Your task to perform on an android device: toggle improve location accuracy Image 0: 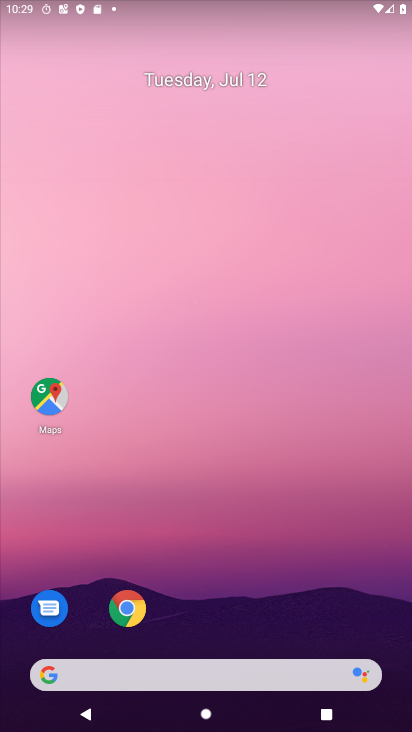
Step 0: drag from (243, 621) to (301, 56)
Your task to perform on an android device: toggle improve location accuracy Image 1: 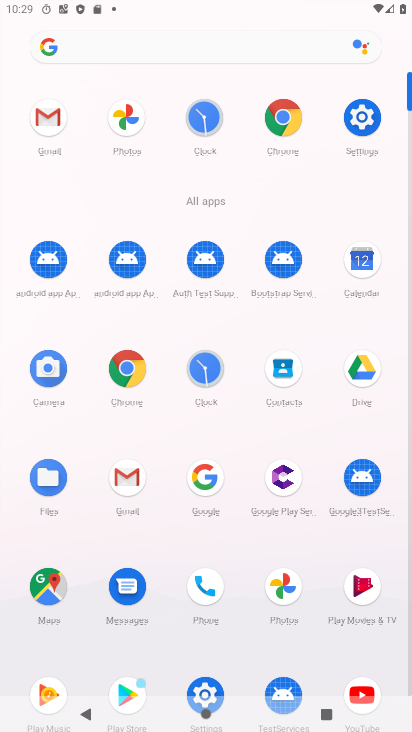
Step 1: click (362, 111)
Your task to perform on an android device: toggle improve location accuracy Image 2: 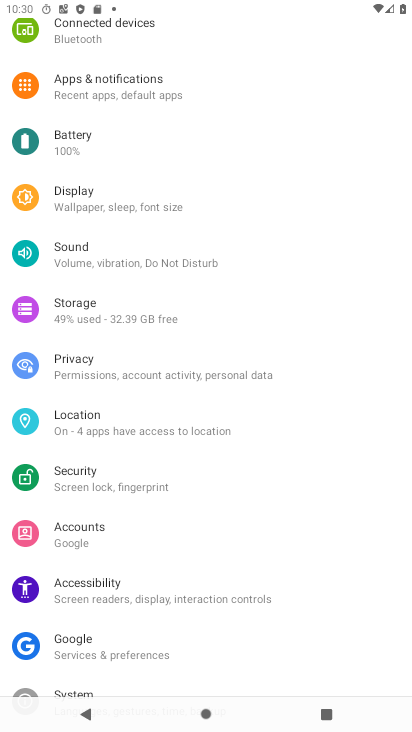
Step 2: click (91, 410)
Your task to perform on an android device: toggle improve location accuracy Image 3: 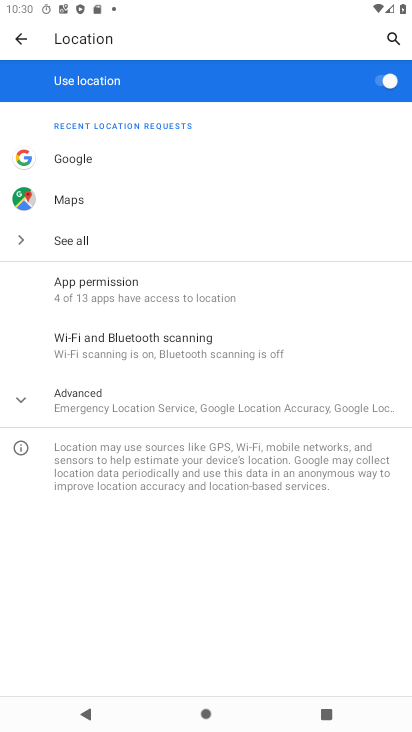
Step 3: click (127, 393)
Your task to perform on an android device: toggle improve location accuracy Image 4: 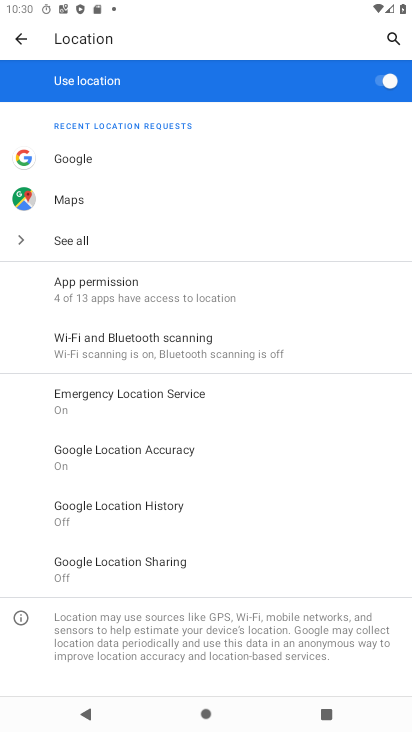
Step 4: click (174, 457)
Your task to perform on an android device: toggle improve location accuracy Image 5: 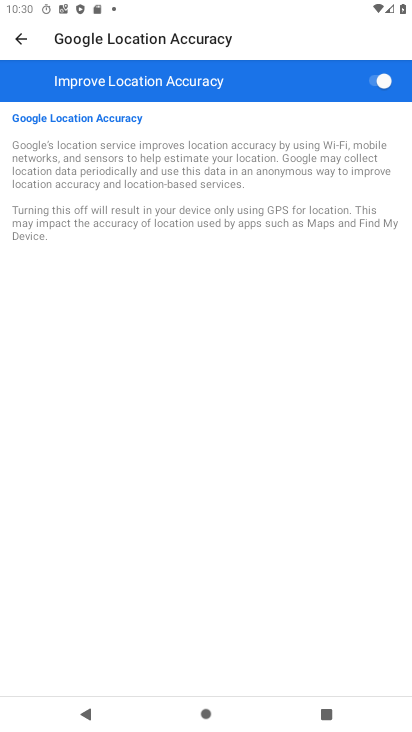
Step 5: click (375, 90)
Your task to perform on an android device: toggle improve location accuracy Image 6: 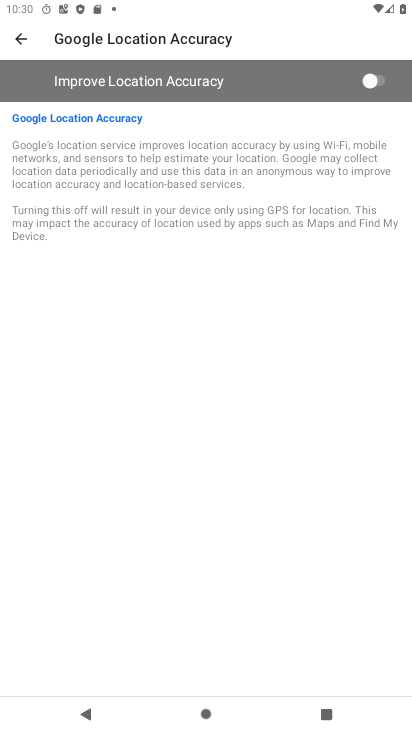
Step 6: task complete